Your task to perform on an android device: Open my contact list Image 0: 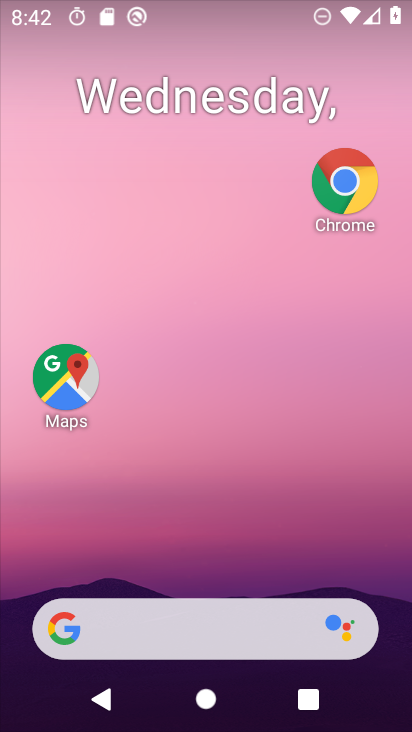
Step 0: drag from (307, 585) to (272, 205)
Your task to perform on an android device: Open my contact list Image 1: 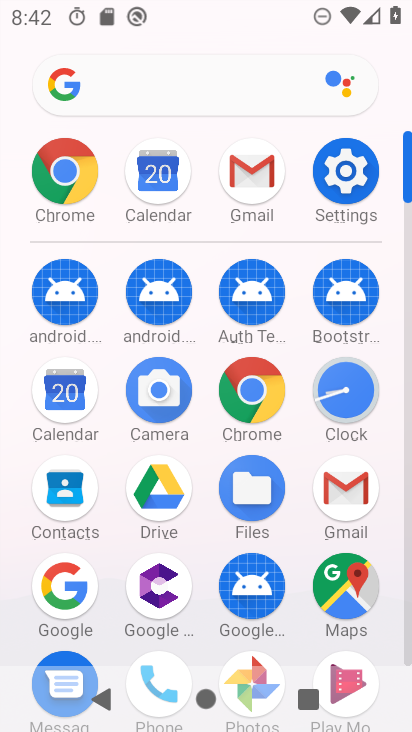
Step 1: click (74, 485)
Your task to perform on an android device: Open my contact list Image 2: 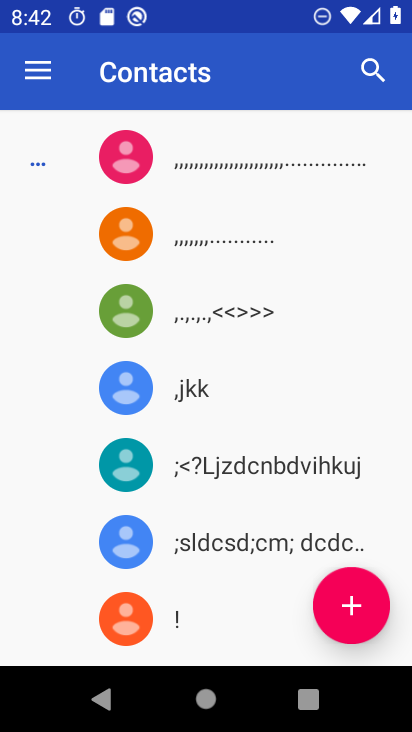
Step 2: task complete